Your task to perform on an android device: turn off javascript in the chrome app Image 0: 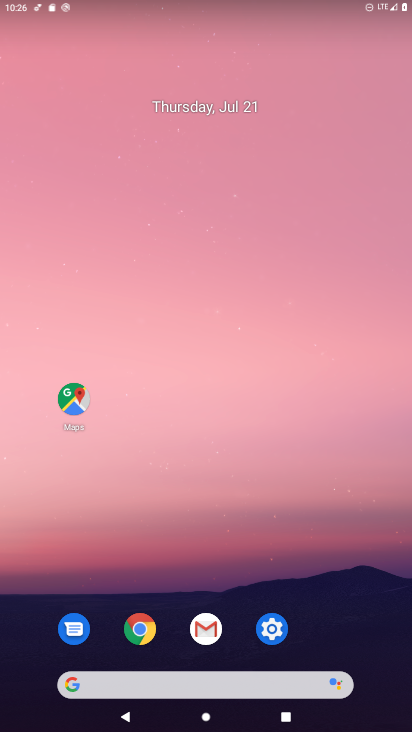
Step 0: click (134, 625)
Your task to perform on an android device: turn off javascript in the chrome app Image 1: 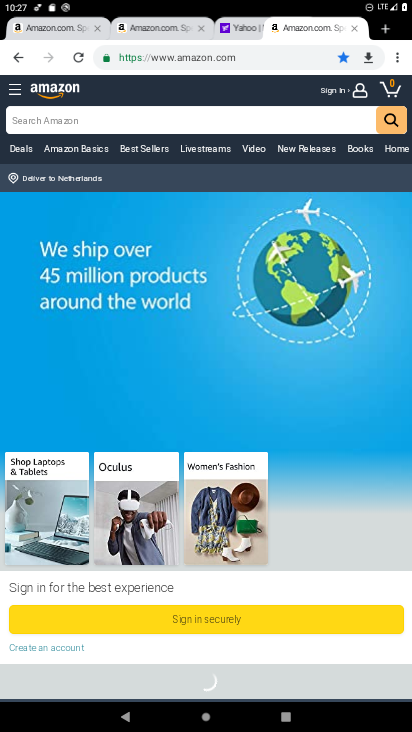
Step 1: click (395, 55)
Your task to perform on an android device: turn off javascript in the chrome app Image 2: 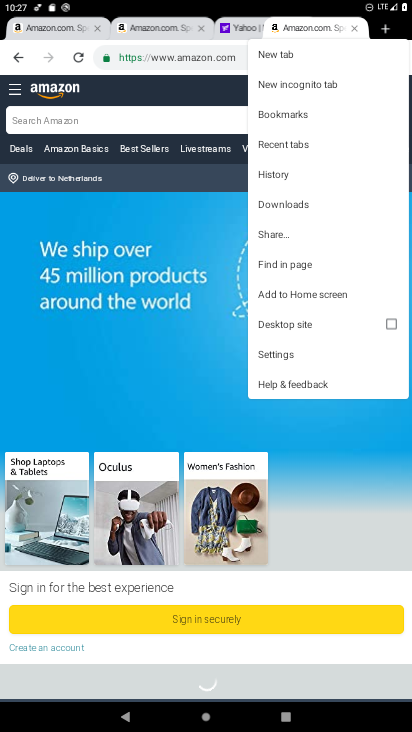
Step 2: click (275, 352)
Your task to perform on an android device: turn off javascript in the chrome app Image 3: 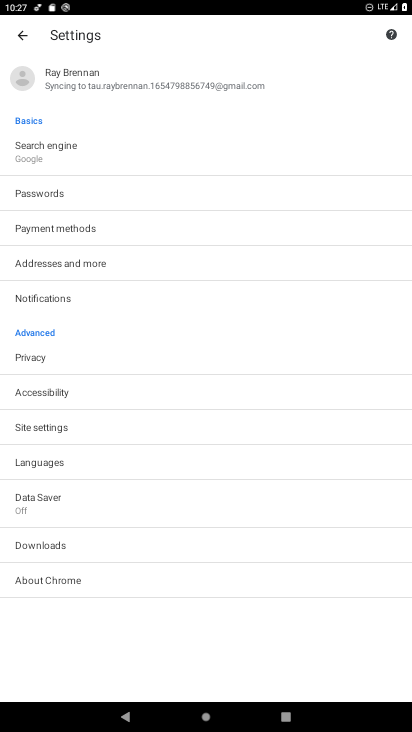
Step 3: click (54, 434)
Your task to perform on an android device: turn off javascript in the chrome app Image 4: 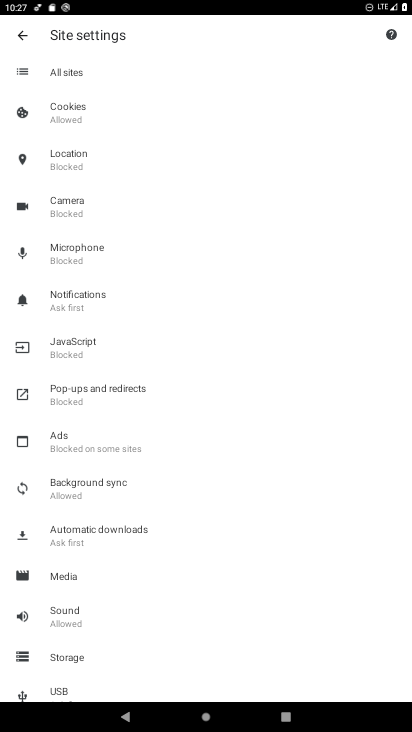
Step 4: click (65, 341)
Your task to perform on an android device: turn off javascript in the chrome app Image 5: 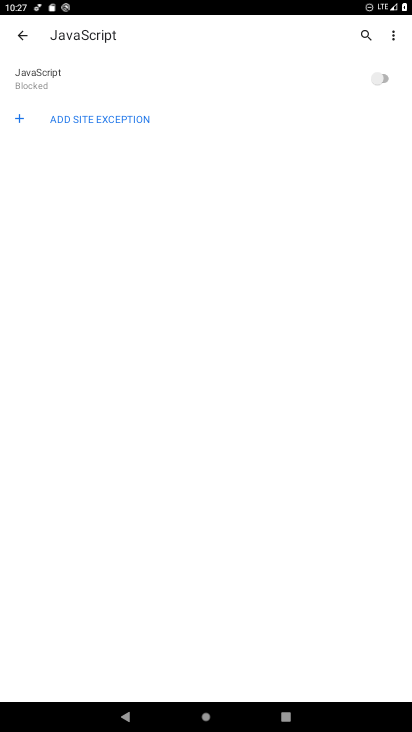
Step 5: click (379, 81)
Your task to perform on an android device: turn off javascript in the chrome app Image 6: 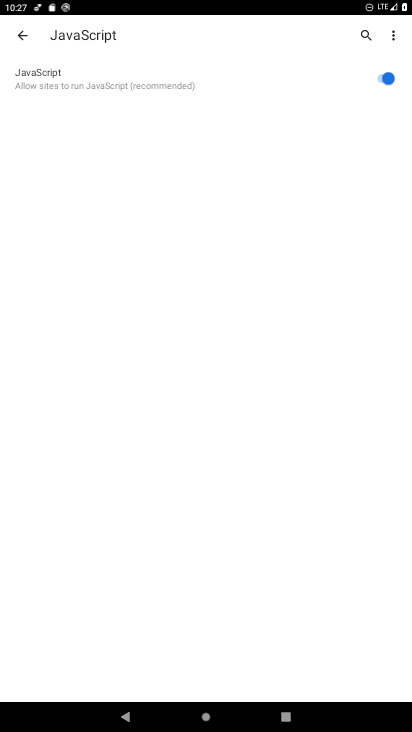
Step 6: click (379, 81)
Your task to perform on an android device: turn off javascript in the chrome app Image 7: 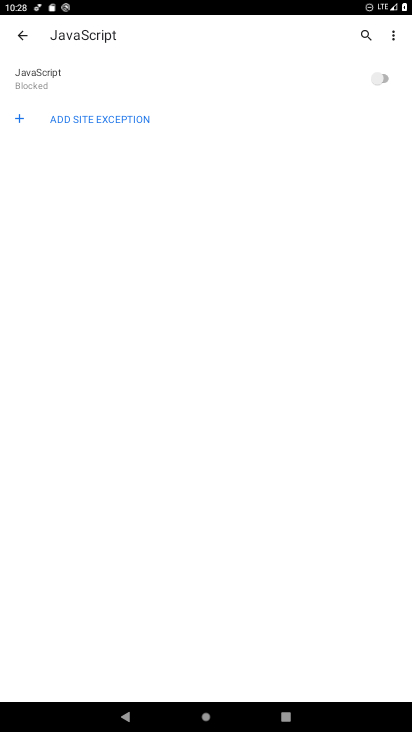
Step 7: task complete